Your task to perform on an android device: Open ESPN.com Image 0: 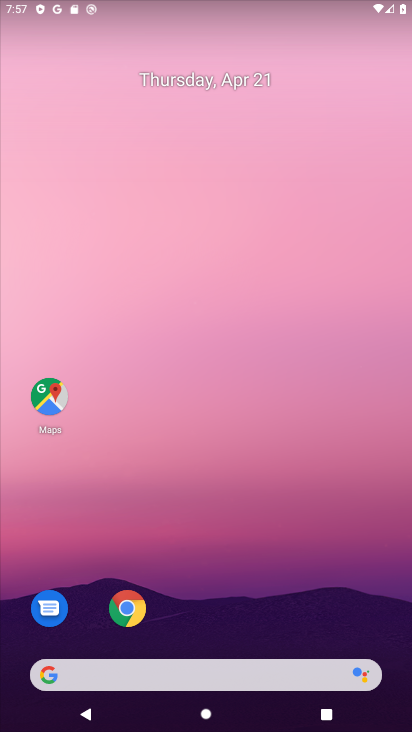
Step 0: click (194, 684)
Your task to perform on an android device: Open ESPN.com Image 1: 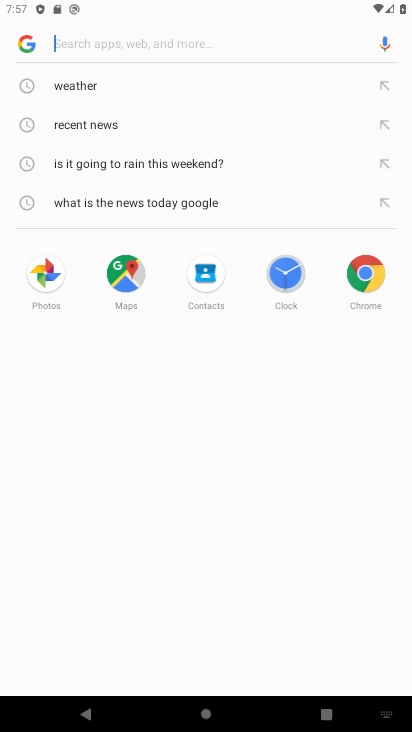
Step 1: type "espn.com"
Your task to perform on an android device: Open ESPN.com Image 2: 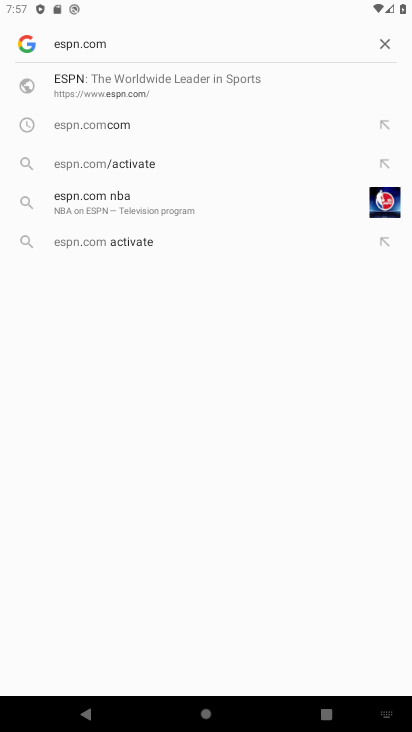
Step 2: click (190, 95)
Your task to perform on an android device: Open ESPN.com Image 3: 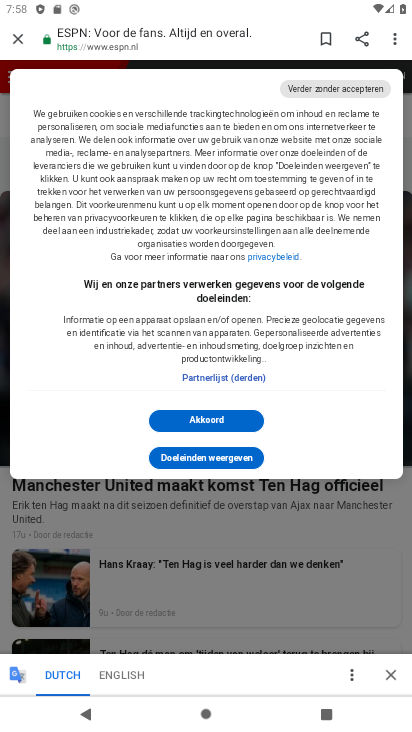
Step 3: task complete